Your task to perform on an android device: Open Google Image 0: 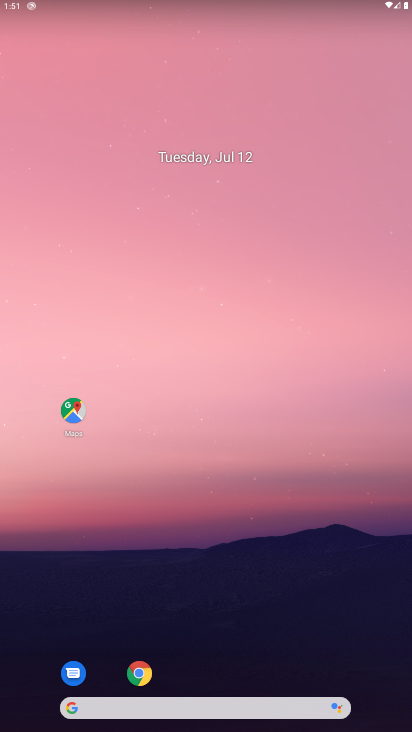
Step 0: drag from (205, 715) to (205, 339)
Your task to perform on an android device: Open Google Image 1: 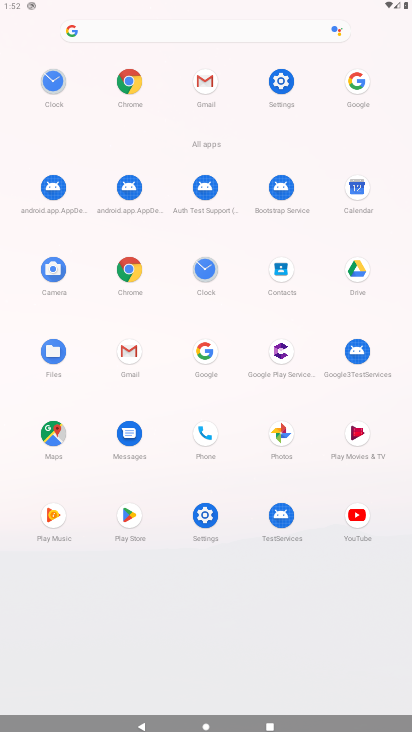
Step 1: click (200, 349)
Your task to perform on an android device: Open Google Image 2: 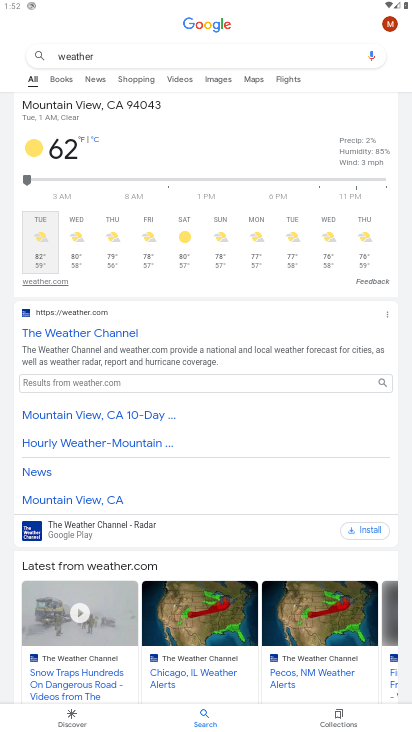
Step 2: task complete